Your task to perform on an android device: Show me the alarms in the clock app Image 0: 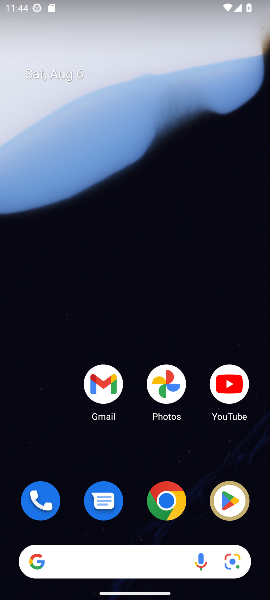
Step 0: drag from (118, 313) to (136, 48)
Your task to perform on an android device: Show me the alarms in the clock app Image 1: 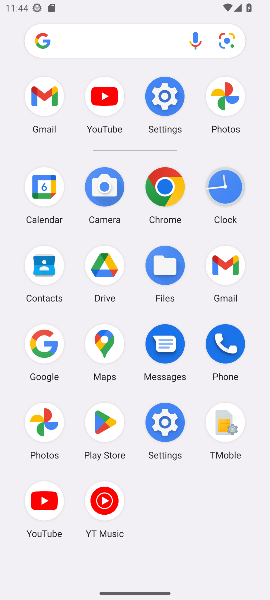
Step 1: click (222, 192)
Your task to perform on an android device: Show me the alarms in the clock app Image 2: 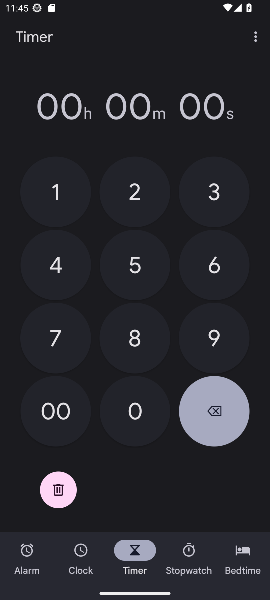
Step 2: click (25, 569)
Your task to perform on an android device: Show me the alarms in the clock app Image 3: 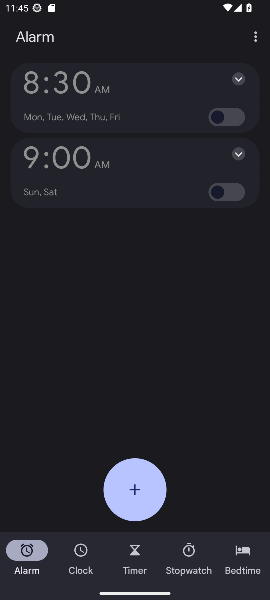
Step 3: task complete